Your task to perform on an android device: change the clock display to digital Image 0: 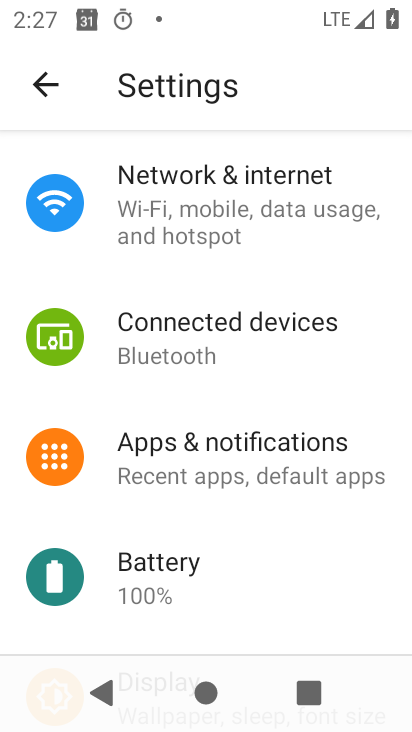
Step 0: press home button
Your task to perform on an android device: change the clock display to digital Image 1: 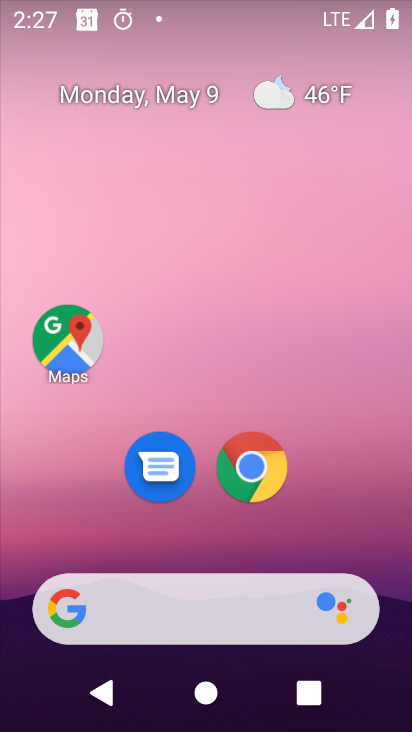
Step 1: drag from (320, 495) to (288, 3)
Your task to perform on an android device: change the clock display to digital Image 2: 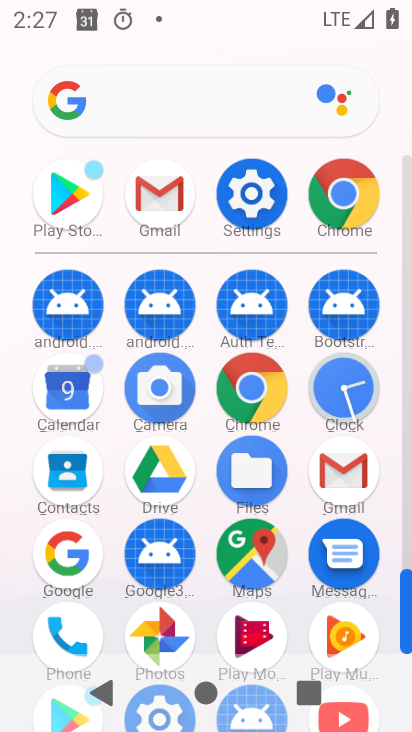
Step 2: click (346, 388)
Your task to perform on an android device: change the clock display to digital Image 3: 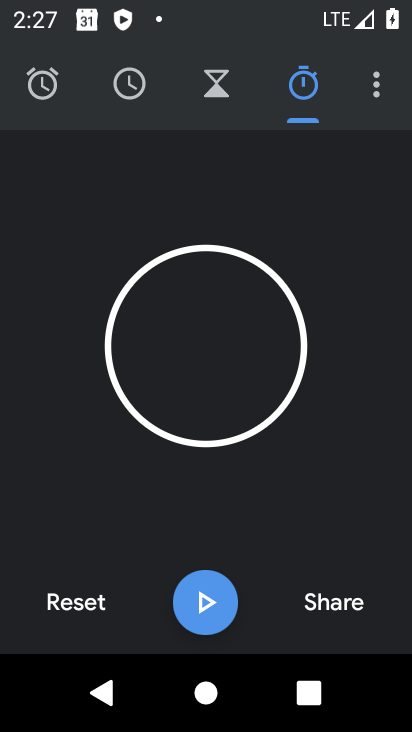
Step 3: click (378, 84)
Your task to perform on an android device: change the clock display to digital Image 4: 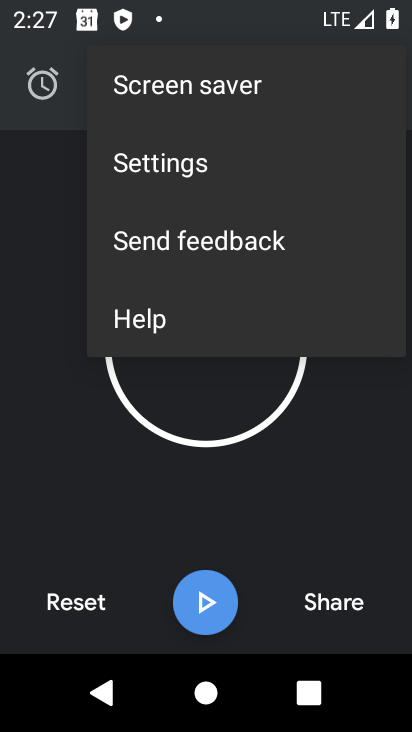
Step 4: click (221, 174)
Your task to perform on an android device: change the clock display to digital Image 5: 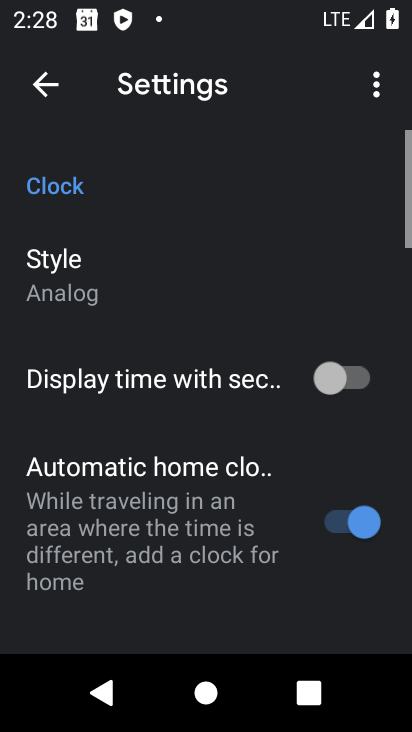
Step 5: click (48, 268)
Your task to perform on an android device: change the clock display to digital Image 6: 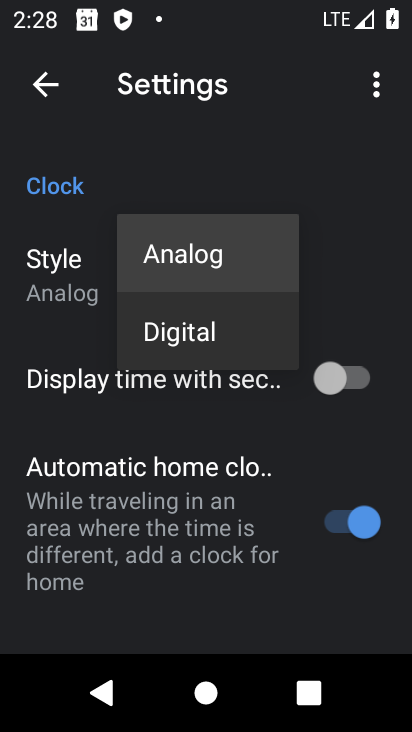
Step 6: click (182, 325)
Your task to perform on an android device: change the clock display to digital Image 7: 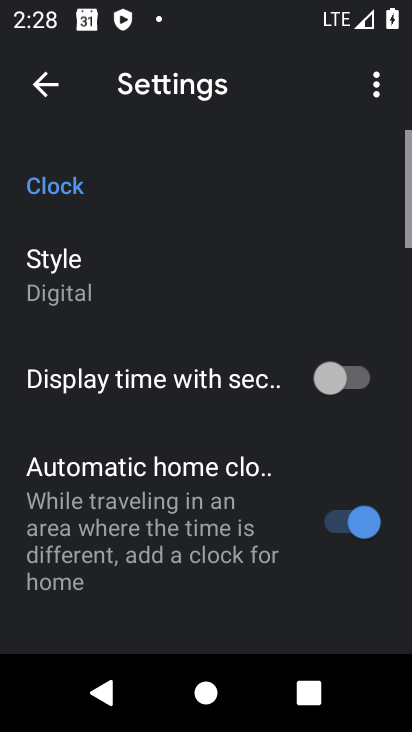
Step 7: task complete